Your task to perform on an android device: turn off picture-in-picture Image 0: 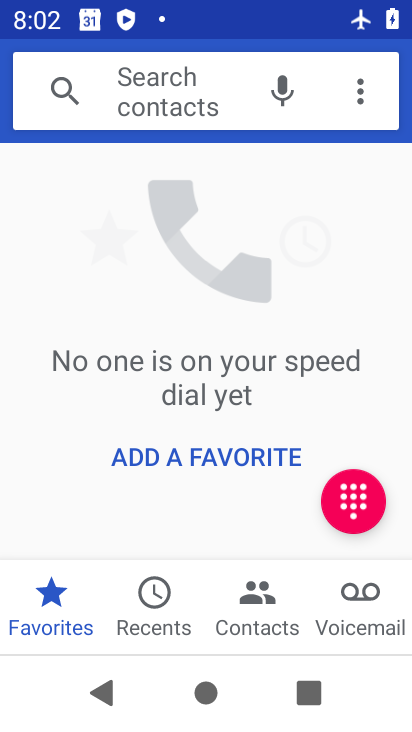
Step 0: press home button
Your task to perform on an android device: turn off picture-in-picture Image 1: 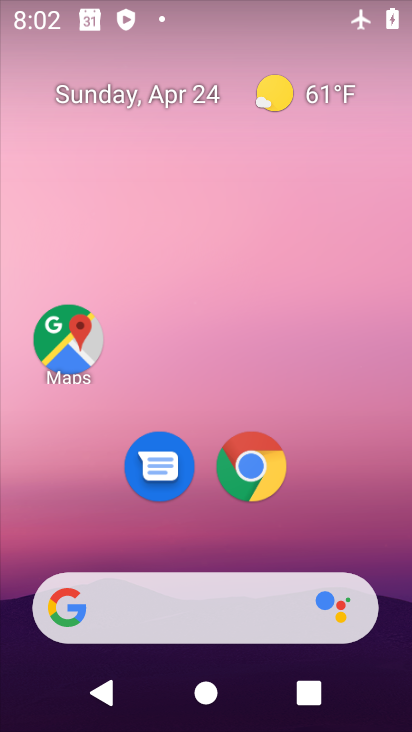
Step 1: click (227, 459)
Your task to perform on an android device: turn off picture-in-picture Image 2: 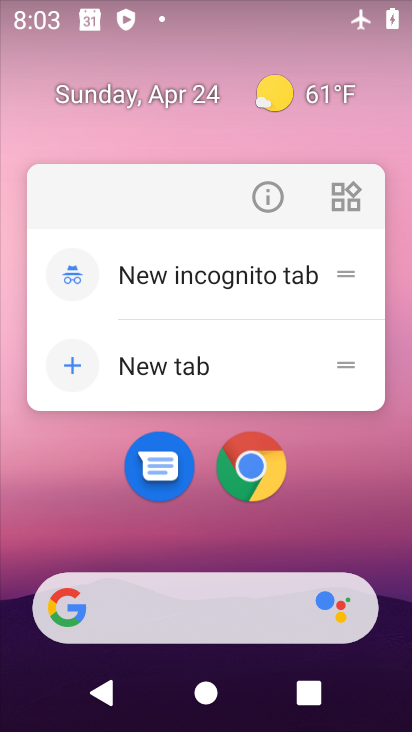
Step 2: click (275, 199)
Your task to perform on an android device: turn off picture-in-picture Image 3: 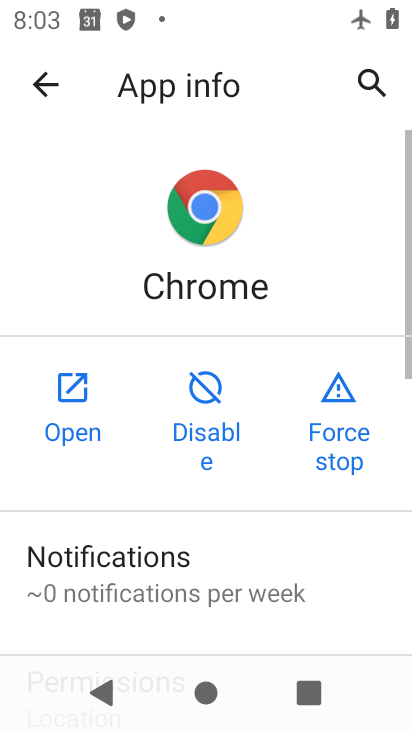
Step 3: drag from (202, 377) to (288, 0)
Your task to perform on an android device: turn off picture-in-picture Image 4: 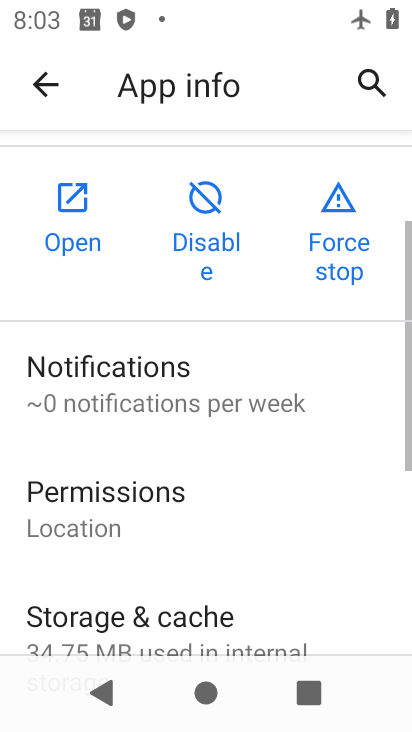
Step 4: drag from (193, 543) to (234, 67)
Your task to perform on an android device: turn off picture-in-picture Image 5: 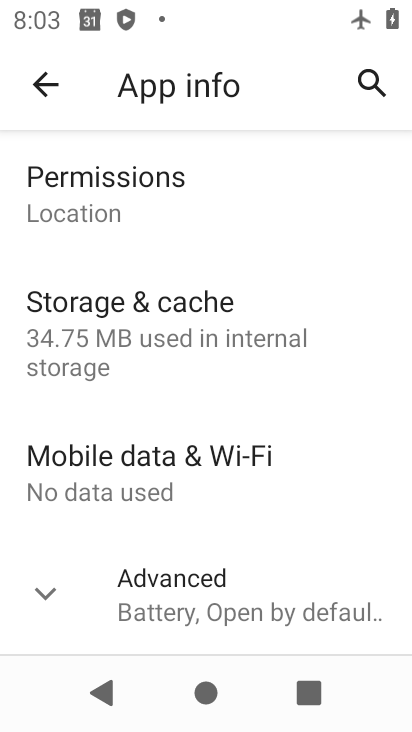
Step 5: click (159, 601)
Your task to perform on an android device: turn off picture-in-picture Image 6: 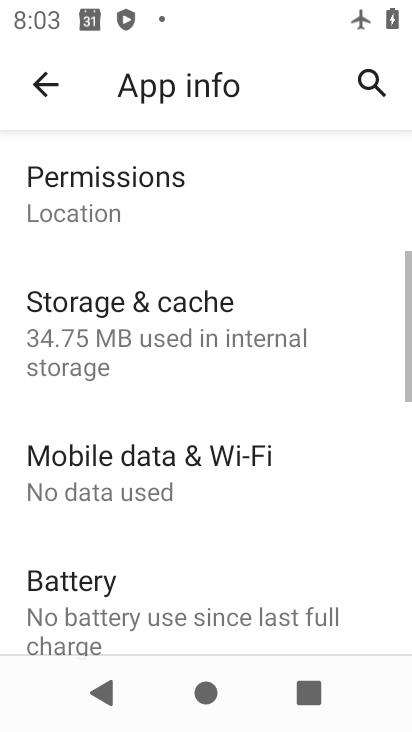
Step 6: drag from (193, 562) to (294, 3)
Your task to perform on an android device: turn off picture-in-picture Image 7: 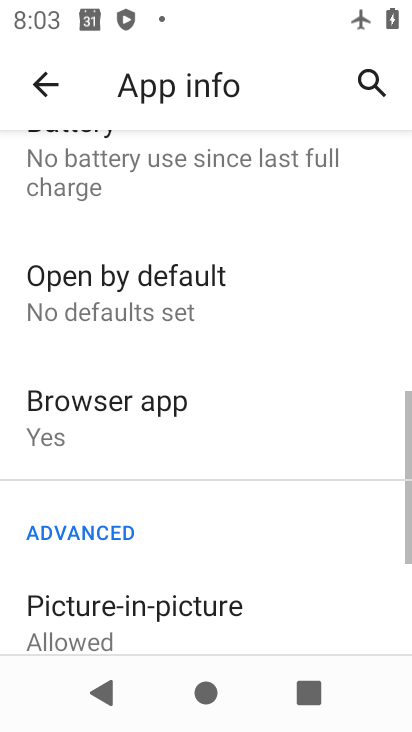
Step 7: drag from (218, 458) to (243, 309)
Your task to perform on an android device: turn off picture-in-picture Image 8: 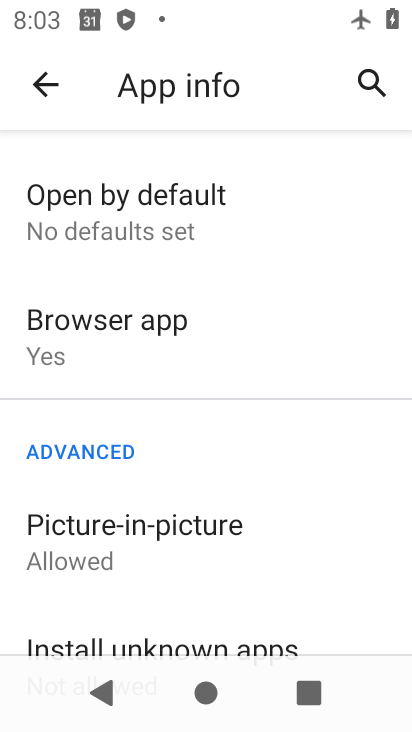
Step 8: click (133, 544)
Your task to perform on an android device: turn off picture-in-picture Image 9: 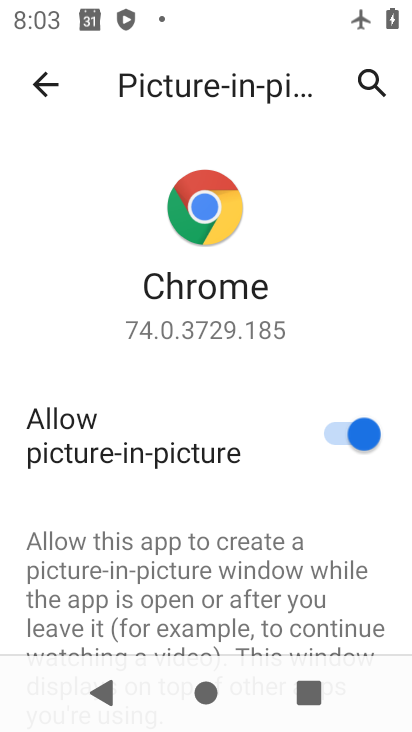
Step 9: click (339, 427)
Your task to perform on an android device: turn off picture-in-picture Image 10: 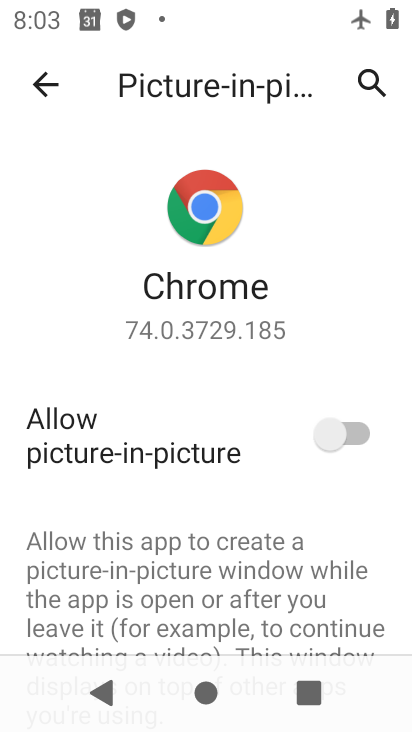
Step 10: task complete